Your task to perform on an android device: Open settings on Google Maps Image 0: 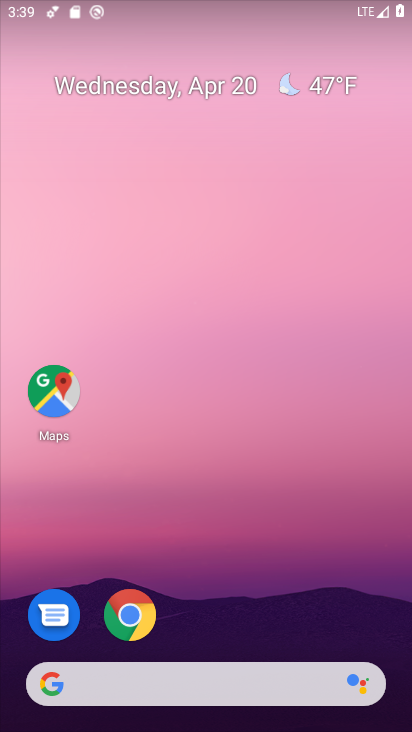
Step 0: click (45, 388)
Your task to perform on an android device: Open settings on Google Maps Image 1: 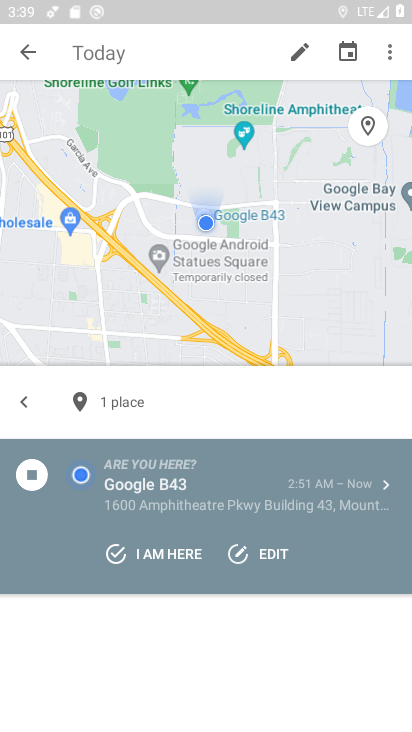
Step 1: click (16, 60)
Your task to perform on an android device: Open settings on Google Maps Image 2: 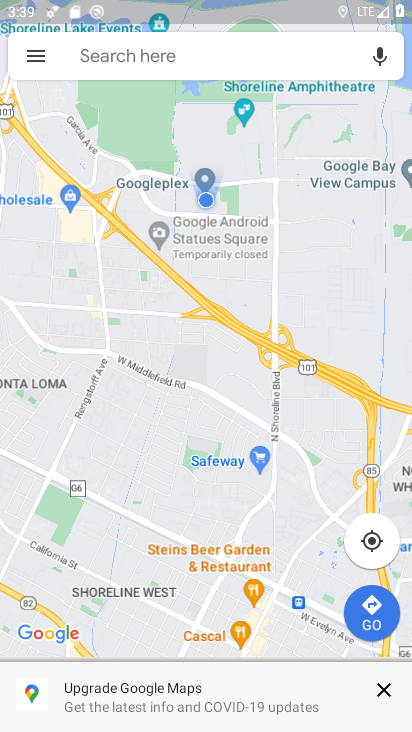
Step 2: click (28, 53)
Your task to perform on an android device: Open settings on Google Maps Image 3: 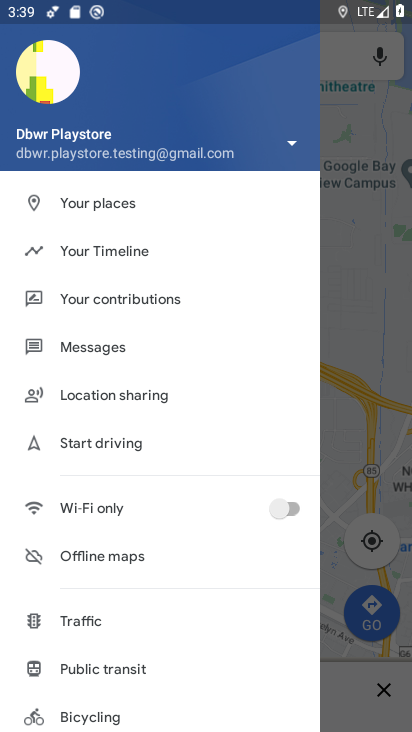
Step 3: drag from (119, 658) to (165, 298)
Your task to perform on an android device: Open settings on Google Maps Image 4: 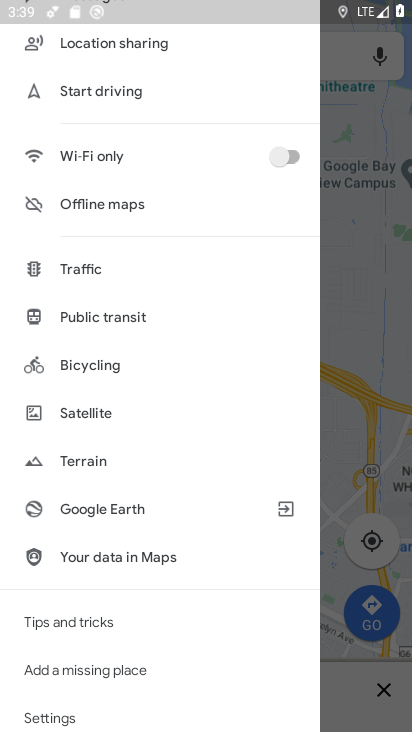
Step 4: drag from (131, 685) to (171, 421)
Your task to perform on an android device: Open settings on Google Maps Image 5: 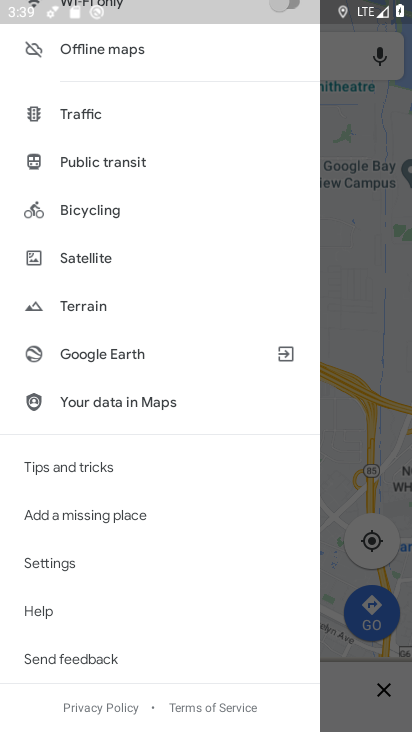
Step 5: click (74, 565)
Your task to perform on an android device: Open settings on Google Maps Image 6: 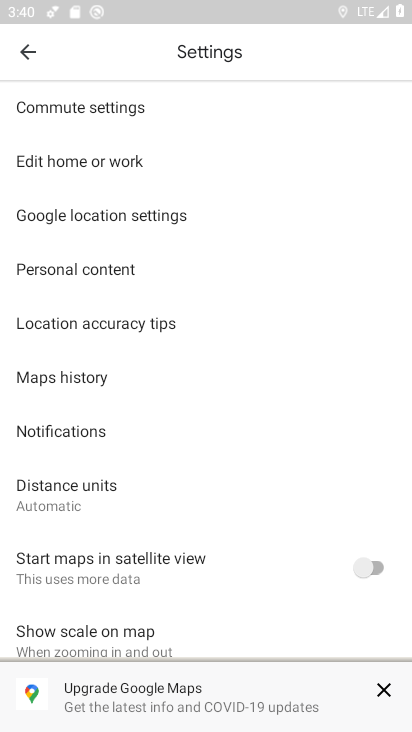
Step 6: task complete